Your task to perform on an android device: What is the news today? Image 0: 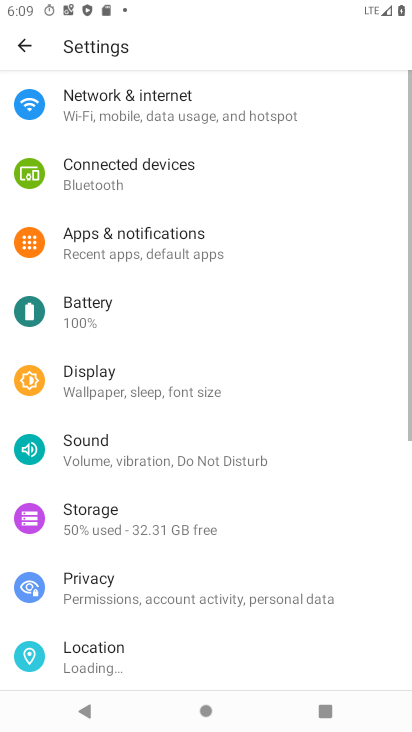
Step 0: press home button
Your task to perform on an android device: What is the news today? Image 1: 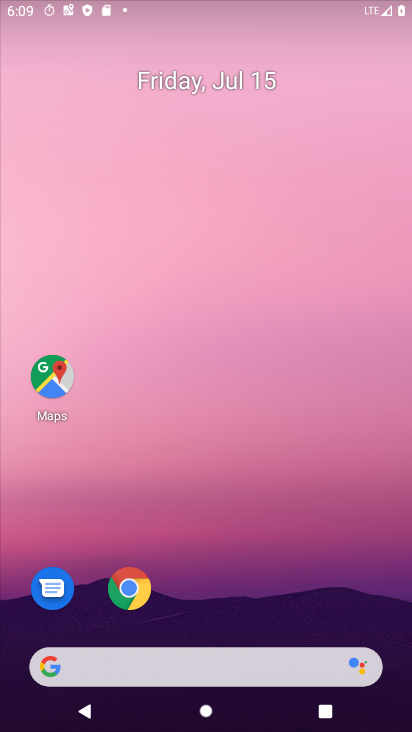
Step 1: drag from (298, 654) to (358, 145)
Your task to perform on an android device: What is the news today? Image 2: 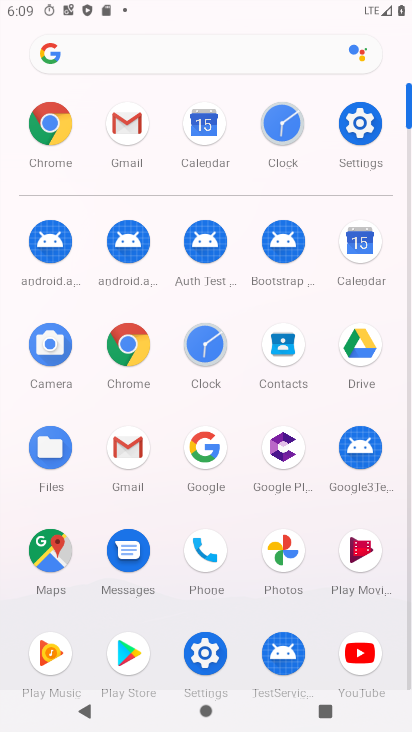
Step 2: click (143, 347)
Your task to perform on an android device: What is the news today? Image 3: 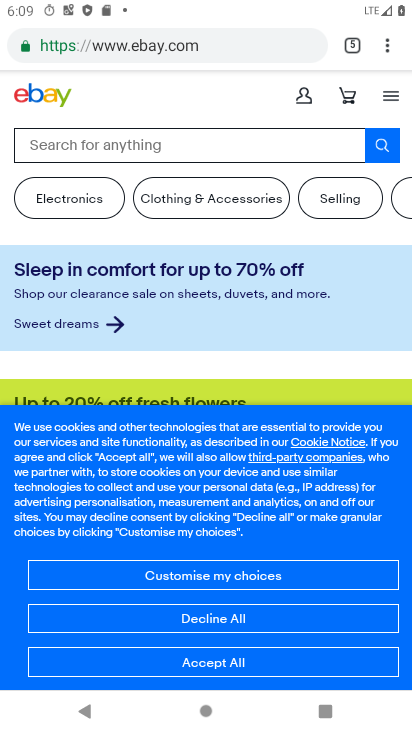
Step 3: click (145, 48)
Your task to perform on an android device: What is the news today? Image 4: 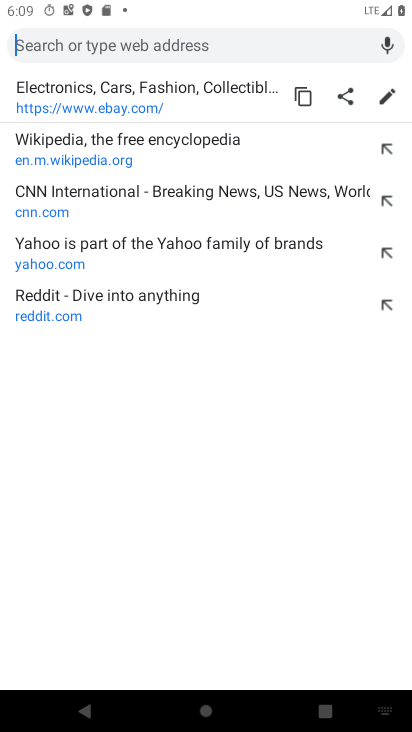
Step 4: type "news today"
Your task to perform on an android device: What is the news today? Image 5: 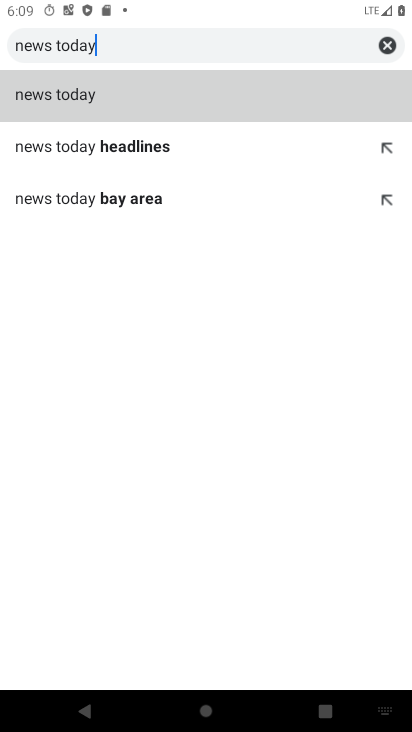
Step 5: click (150, 105)
Your task to perform on an android device: What is the news today? Image 6: 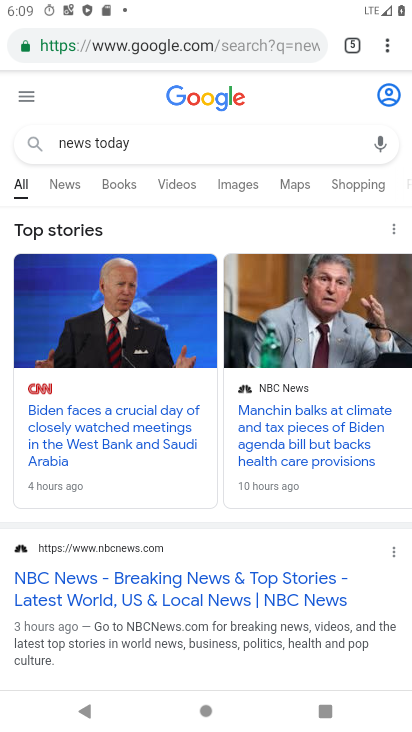
Step 6: task complete